Your task to perform on an android device: Open eBay Image 0: 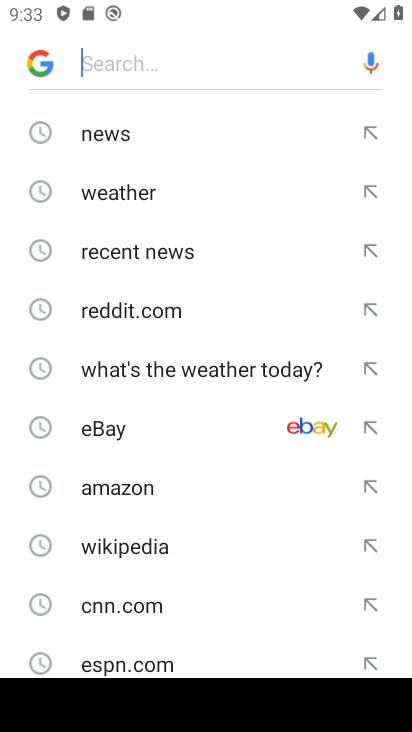
Step 0: click (152, 425)
Your task to perform on an android device: Open eBay Image 1: 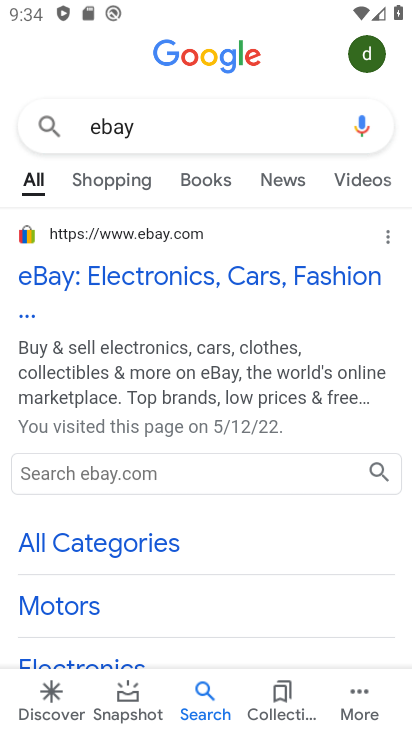
Step 1: click (124, 293)
Your task to perform on an android device: Open eBay Image 2: 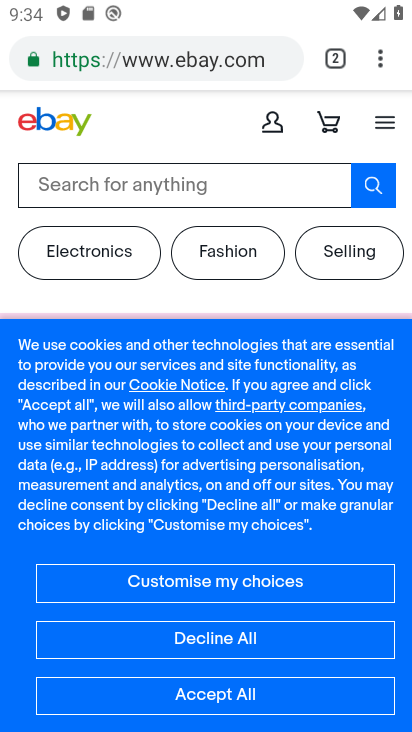
Step 2: task complete